Your task to perform on an android device: Open settings on Google Maps Image 0: 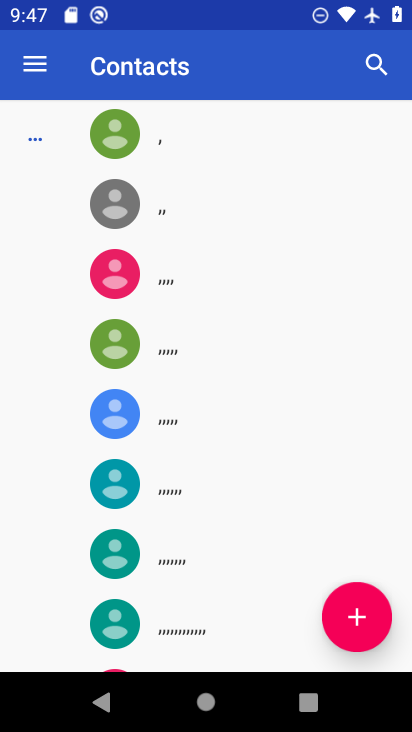
Step 0: press home button
Your task to perform on an android device: Open settings on Google Maps Image 1: 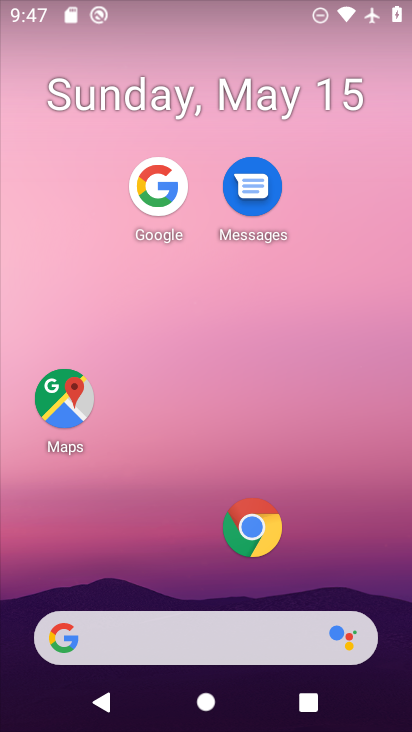
Step 1: click (68, 409)
Your task to perform on an android device: Open settings on Google Maps Image 2: 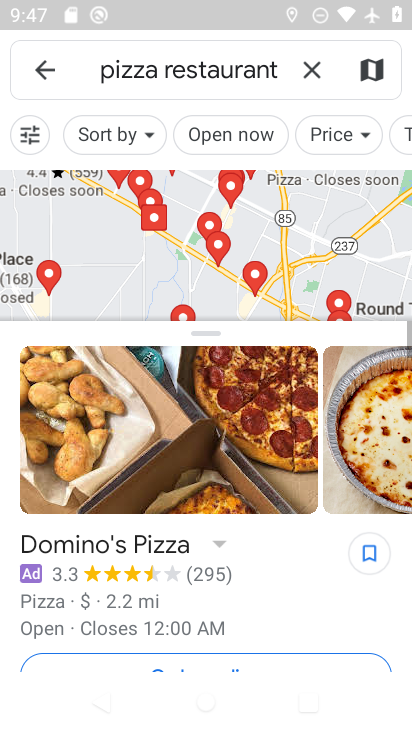
Step 2: click (38, 72)
Your task to perform on an android device: Open settings on Google Maps Image 3: 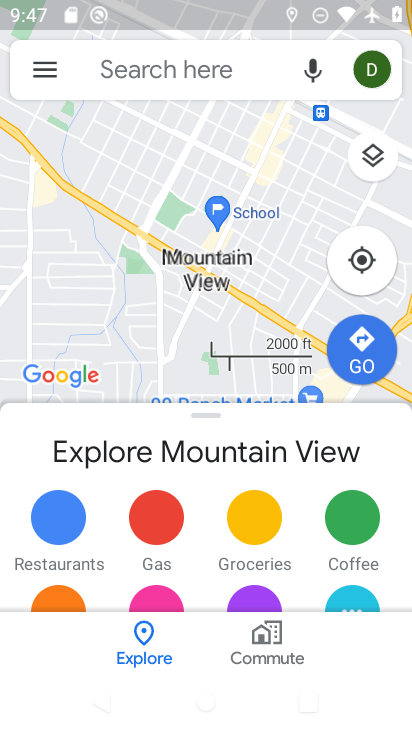
Step 3: click (38, 72)
Your task to perform on an android device: Open settings on Google Maps Image 4: 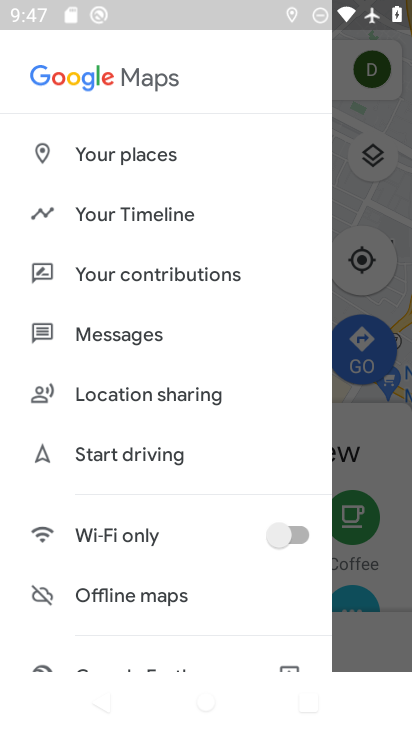
Step 4: drag from (171, 635) to (261, 155)
Your task to perform on an android device: Open settings on Google Maps Image 5: 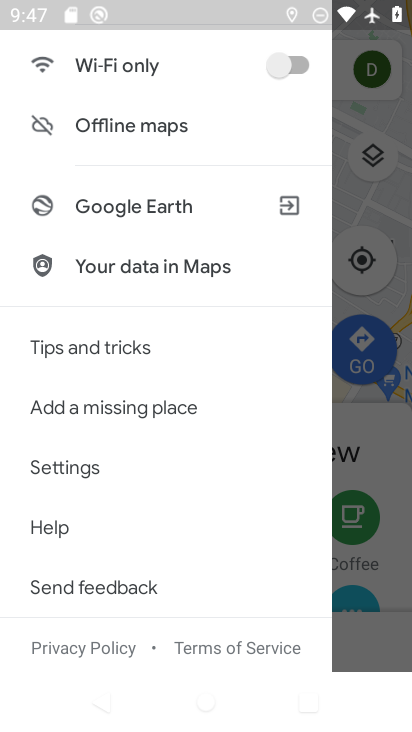
Step 5: click (73, 471)
Your task to perform on an android device: Open settings on Google Maps Image 6: 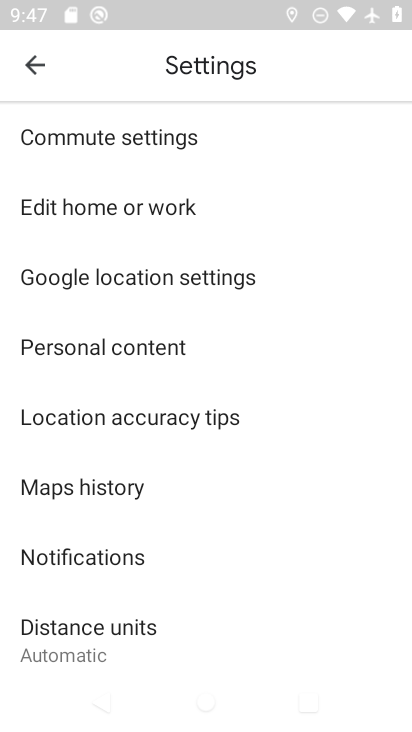
Step 6: task complete